Your task to perform on an android device: Do I have any events today? Image 0: 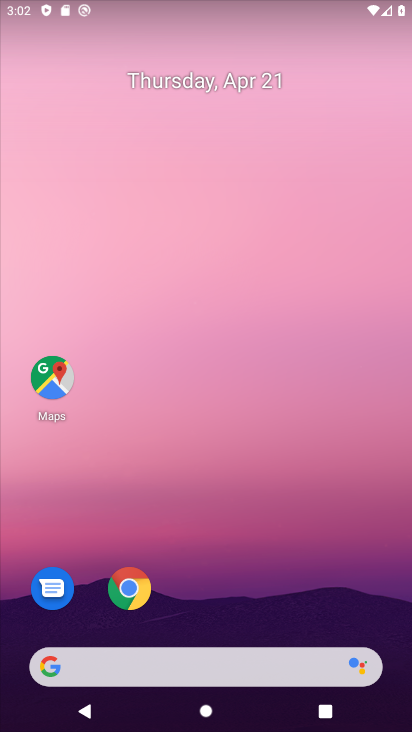
Step 0: drag from (190, 652) to (393, 20)
Your task to perform on an android device: Do I have any events today? Image 1: 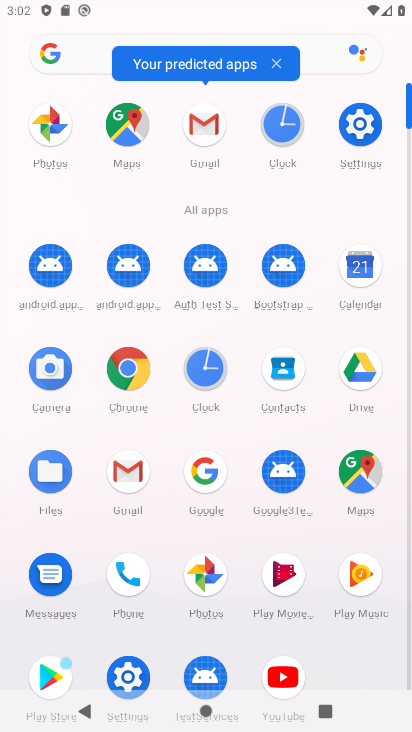
Step 1: click (366, 276)
Your task to perform on an android device: Do I have any events today? Image 2: 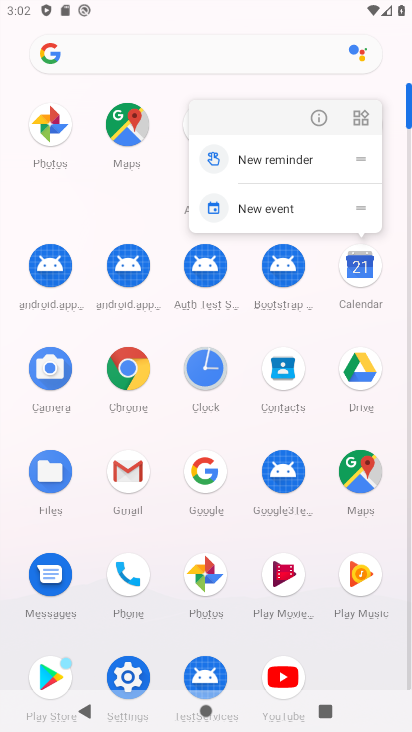
Step 2: click (366, 276)
Your task to perform on an android device: Do I have any events today? Image 3: 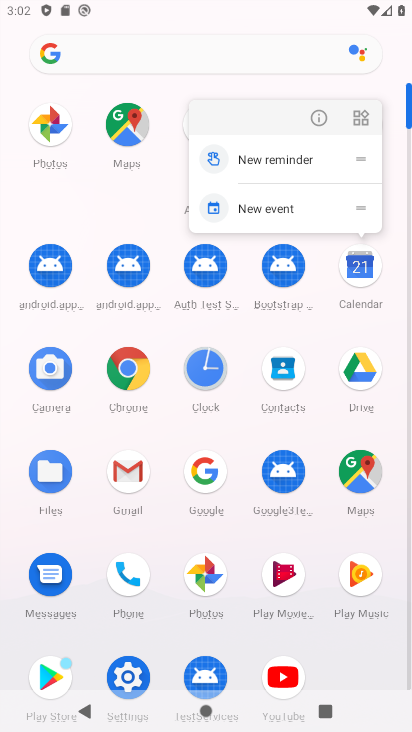
Step 3: click (366, 276)
Your task to perform on an android device: Do I have any events today? Image 4: 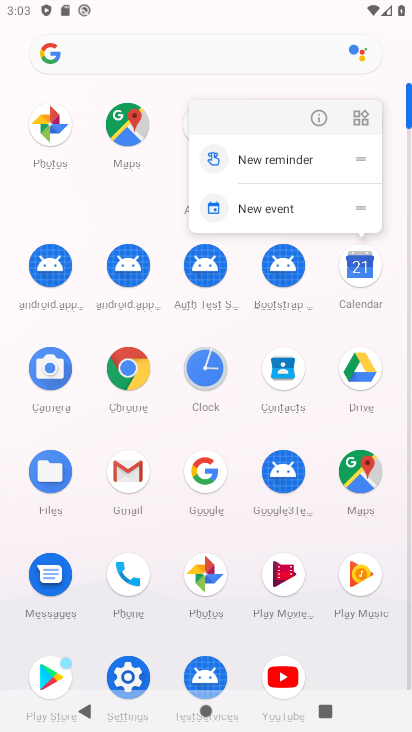
Step 4: click (366, 276)
Your task to perform on an android device: Do I have any events today? Image 5: 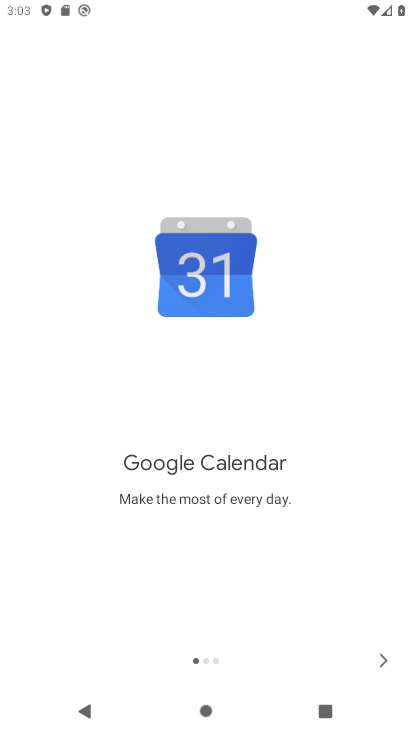
Step 5: click (380, 656)
Your task to perform on an android device: Do I have any events today? Image 6: 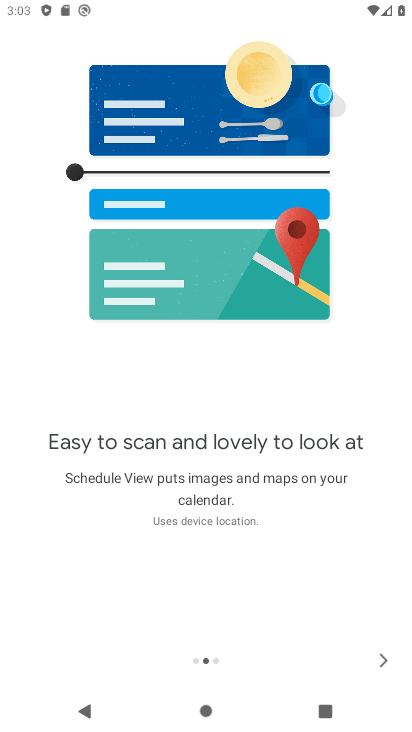
Step 6: click (380, 656)
Your task to perform on an android device: Do I have any events today? Image 7: 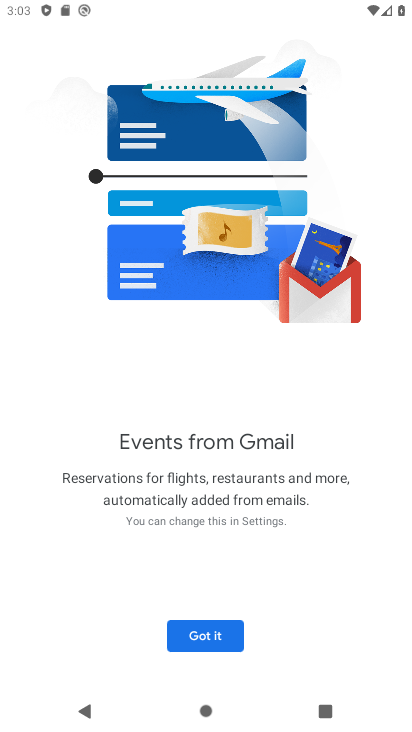
Step 7: click (235, 639)
Your task to perform on an android device: Do I have any events today? Image 8: 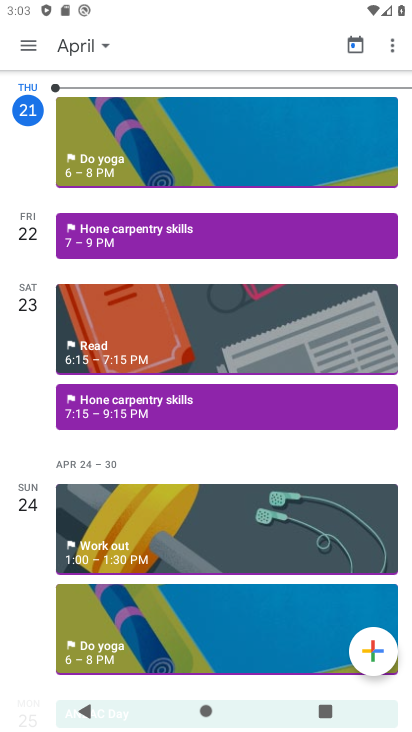
Step 8: task complete